Your task to perform on an android device: open the mobile data screen to see how much data has been used Image 0: 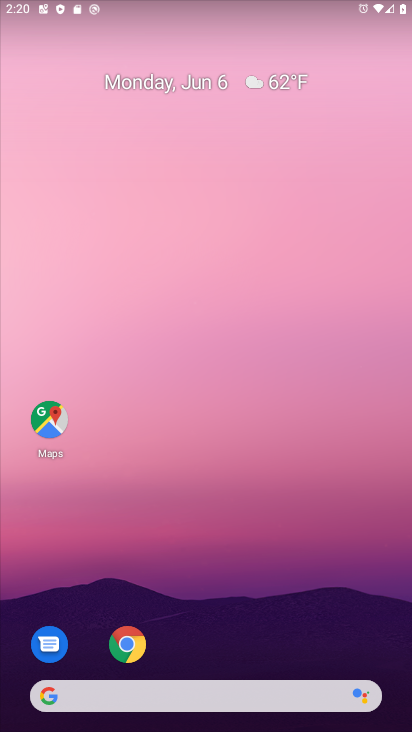
Step 0: drag from (228, 731) to (173, 203)
Your task to perform on an android device: open the mobile data screen to see how much data has been used Image 1: 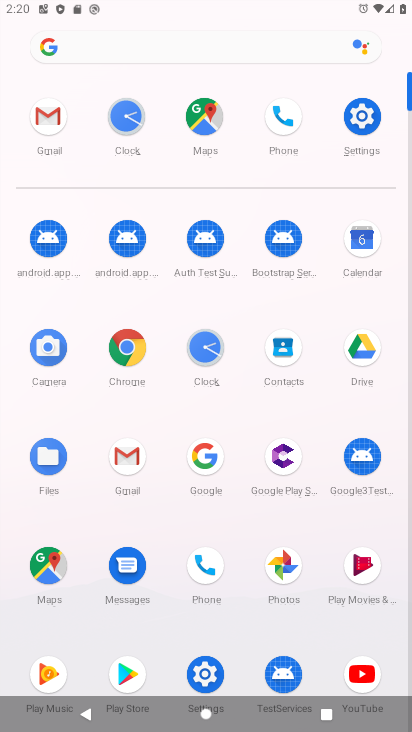
Step 1: click (353, 110)
Your task to perform on an android device: open the mobile data screen to see how much data has been used Image 2: 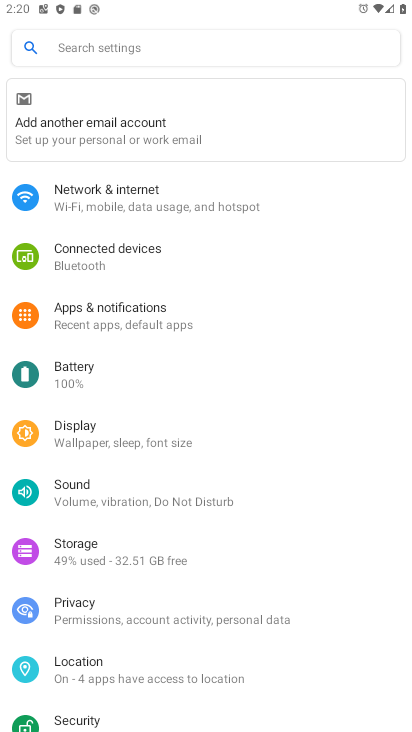
Step 2: click (167, 209)
Your task to perform on an android device: open the mobile data screen to see how much data has been used Image 3: 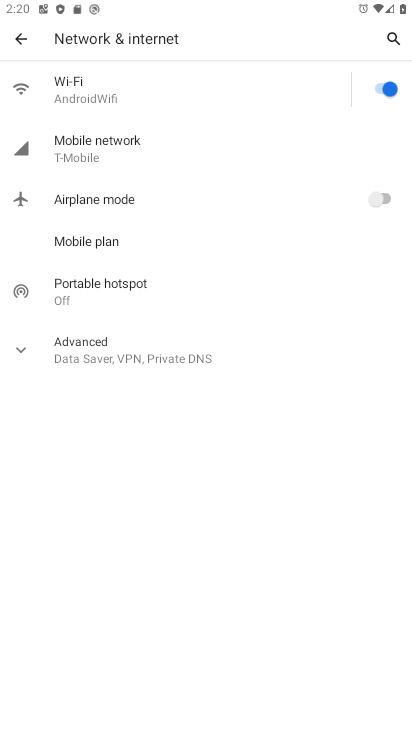
Step 3: click (127, 160)
Your task to perform on an android device: open the mobile data screen to see how much data has been used Image 4: 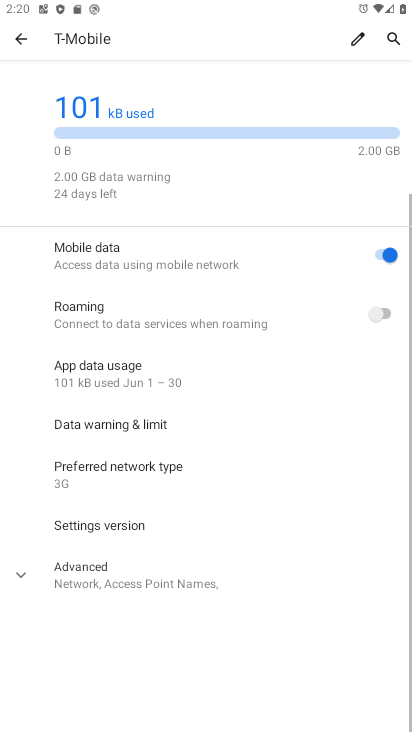
Step 4: click (127, 160)
Your task to perform on an android device: open the mobile data screen to see how much data has been used Image 5: 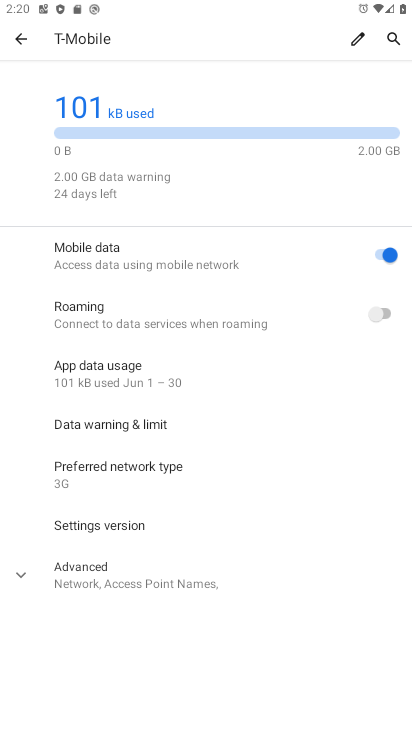
Step 5: click (324, 77)
Your task to perform on an android device: open the mobile data screen to see how much data has been used Image 6: 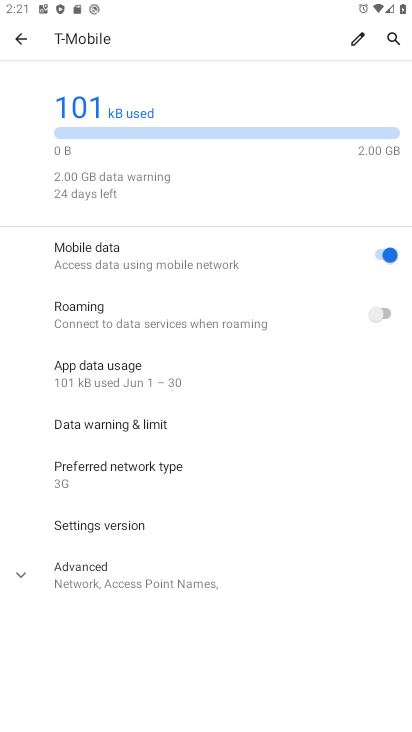
Step 6: task complete